Your task to perform on an android device: Open calendar and show me the fourth week of next month Image 0: 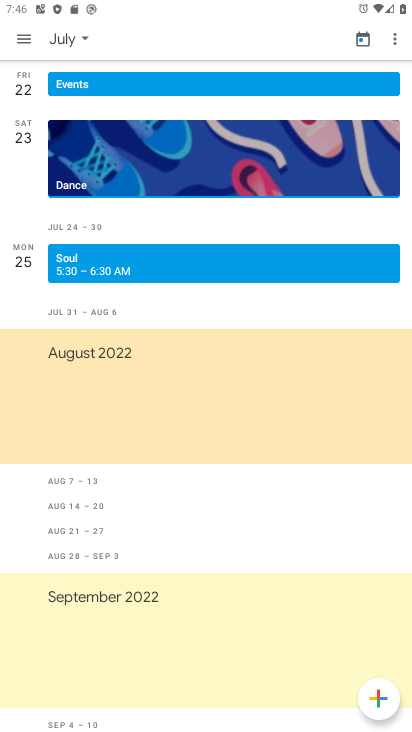
Step 0: click (12, 25)
Your task to perform on an android device: Open calendar and show me the fourth week of next month Image 1: 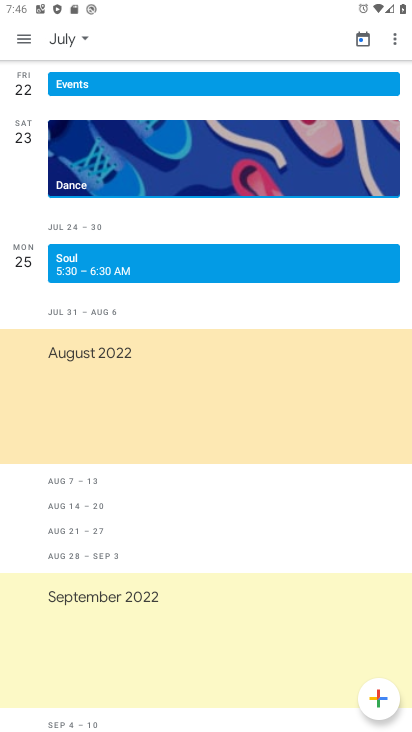
Step 1: click (13, 31)
Your task to perform on an android device: Open calendar and show me the fourth week of next month Image 2: 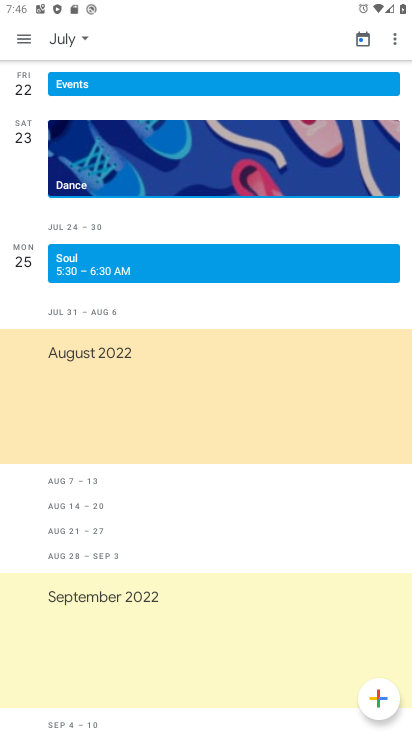
Step 2: click (26, 30)
Your task to perform on an android device: Open calendar and show me the fourth week of next month Image 3: 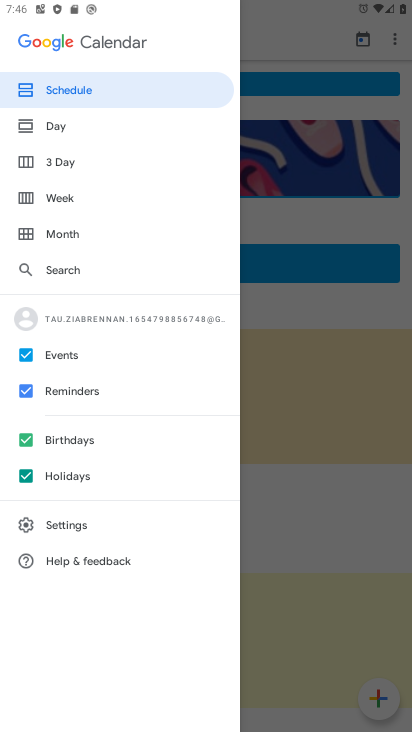
Step 3: click (74, 194)
Your task to perform on an android device: Open calendar and show me the fourth week of next month Image 4: 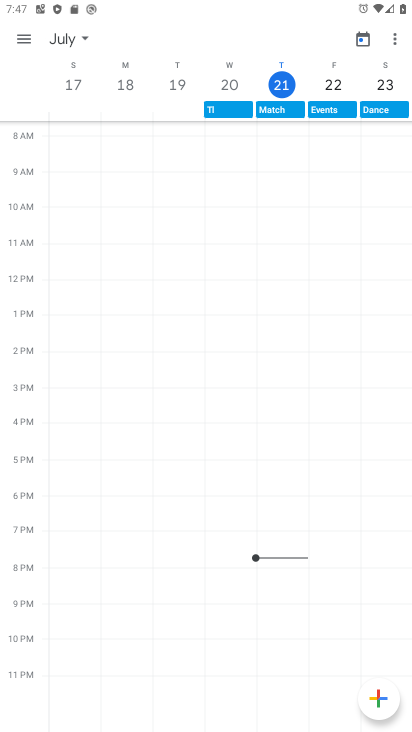
Step 4: click (18, 32)
Your task to perform on an android device: Open calendar and show me the fourth week of next month Image 5: 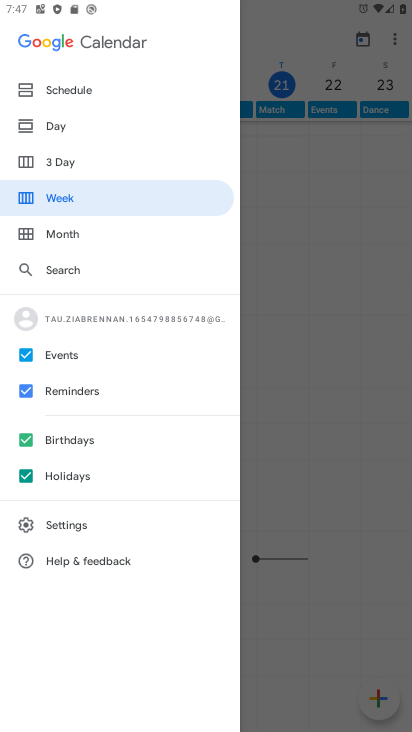
Step 5: click (90, 235)
Your task to perform on an android device: Open calendar and show me the fourth week of next month Image 6: 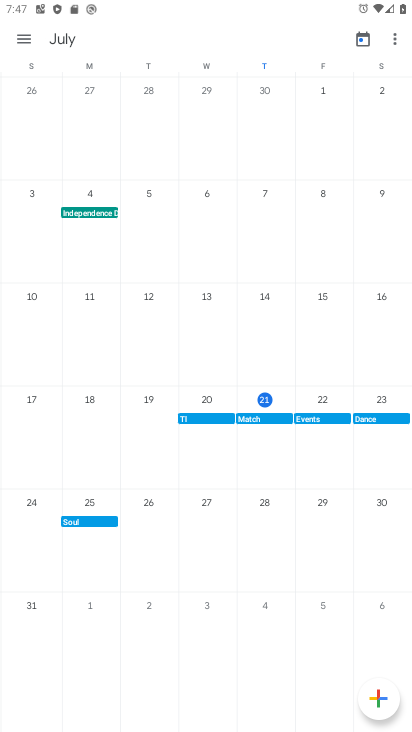
Step 6: drag from (357, 267) to (20, 315)
Your task to perform on an android device: Open calendar and show me the fourth week of next month Image 7: 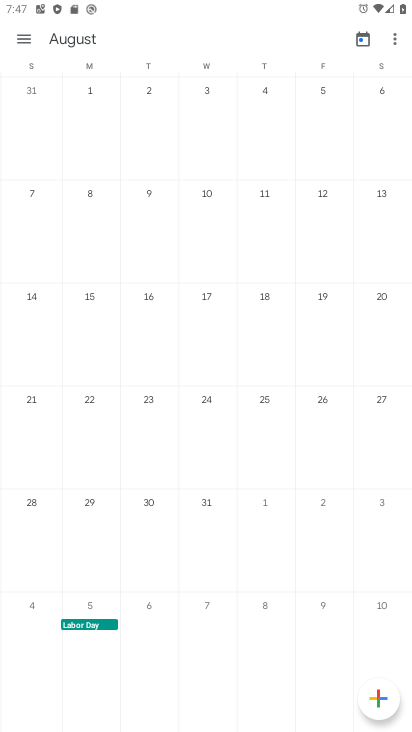
Step 7: click (21, 32)
Your task to perform on an android device: Open calendar and show me the fourth week of next month Image 8: 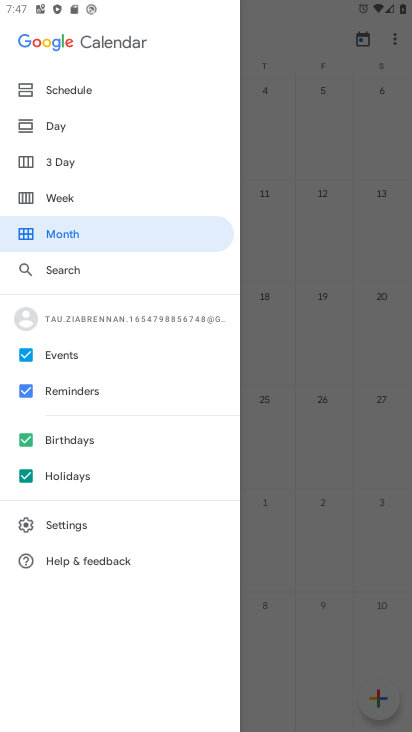
Step 8: click (85, 195)
Your task to perform on an android device: Open calendar and show me the fourth week of next month Image 9: 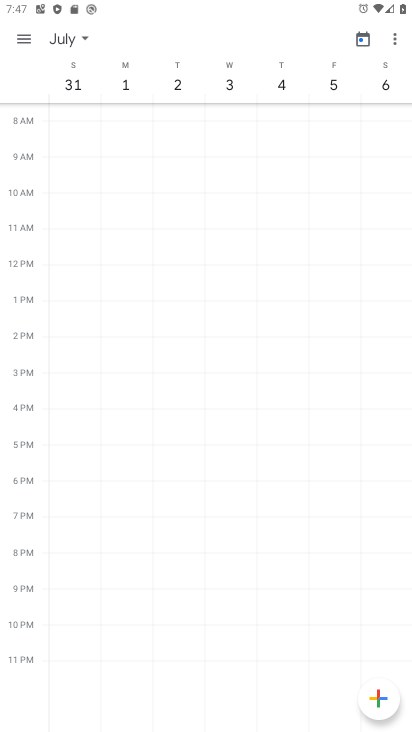
Step 9: task complete